Your task to perform on an android device: Open eBay Image 0: 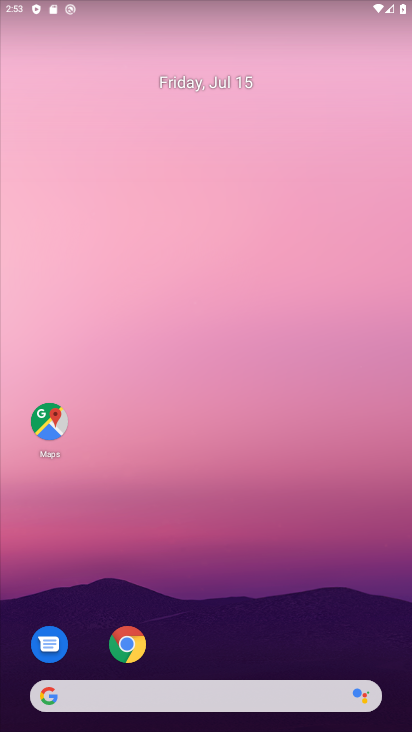
Step 0: click (128, 644)
Your task to perform on an android device: Open eBay Image 1: 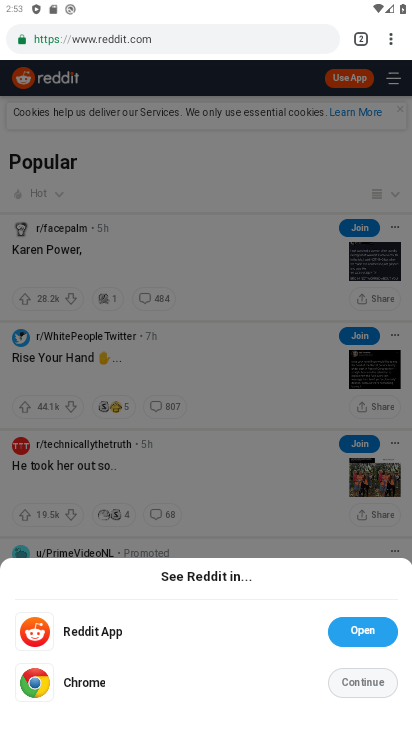
Step 1: click (359, 40)
Your task to perform on an android device: Open eBay Image 2: 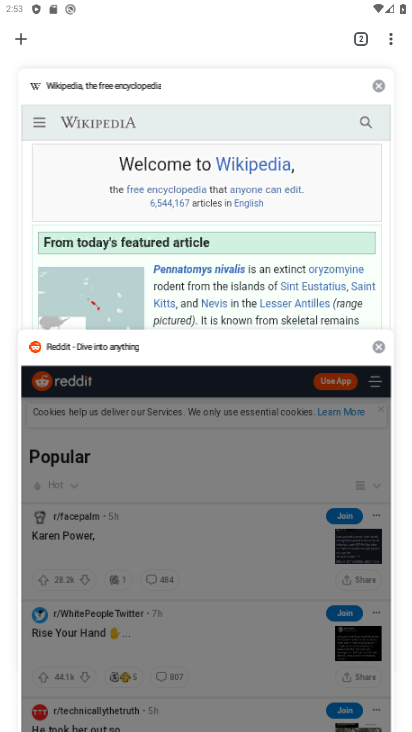
Step 2: click (30, 40)
Your task to perform on an android device: Open eBay Image 3: 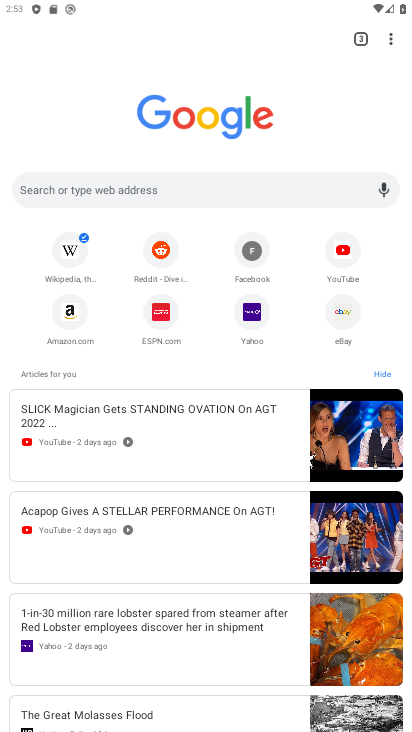
Step 3: click (337, 312)
Your task to perform on an android device: Open eBay Image 4: 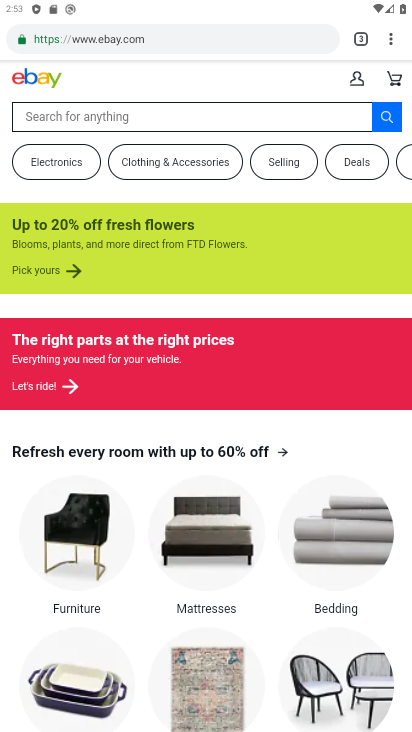
Step 4: task complete